Your task to perform on an android device: Open calendar and show me the first week of next month Image 0: 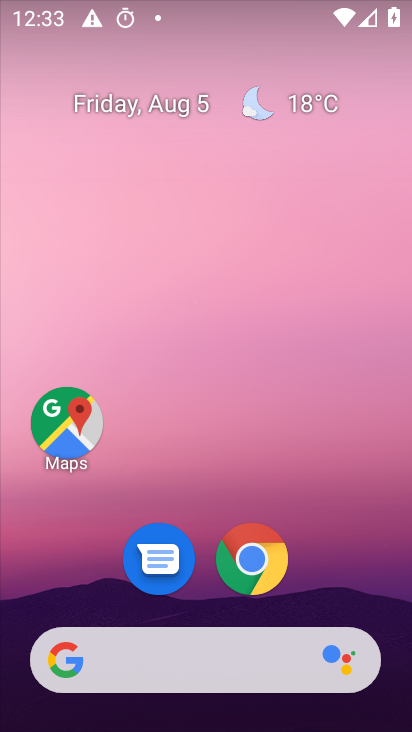
Step 0: drag from (44, 687) to (248, 179)
Your task to perform on an android device: Open calendar and show me the first week of next month Image 1: 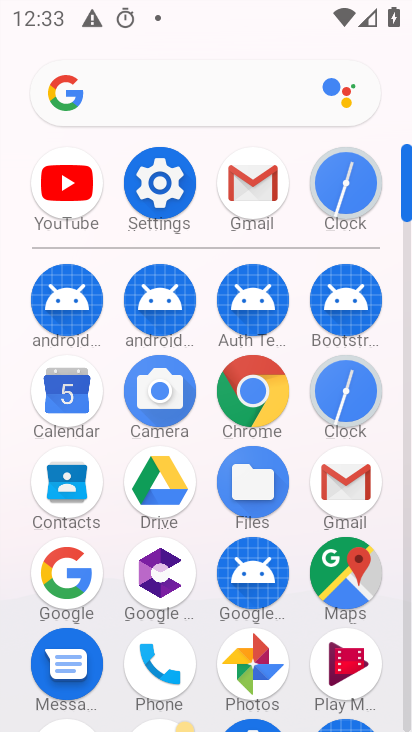
Step 1: click (70, 397)
Your task to perform on an android device: Open calendar and show me the first week of next month Image 2: 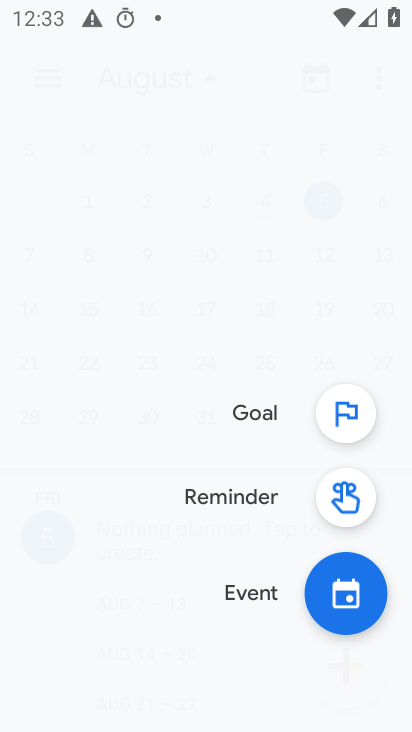
Step 2: click (372, 587)
Your task to perform on an android device: Open calendar and show me the first week of next month Image 3: 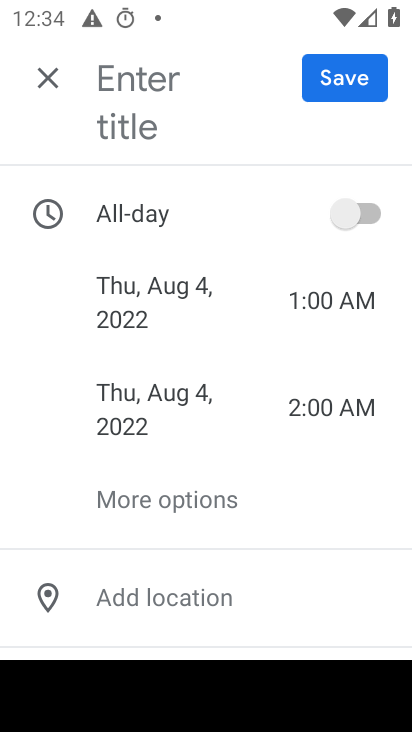
Step 3: click (59, 79)
Your task to perform on an android device: Open calendar and show me the first week of next month Image 4: 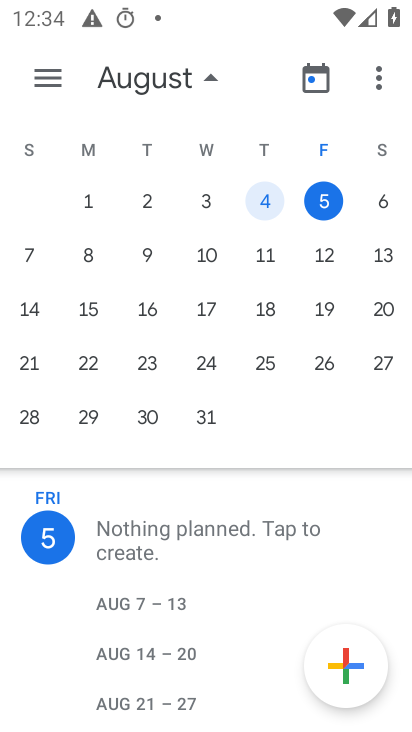
Step 4: task complete